Your task to perform on an android device: Open Google Chrome Image 0: 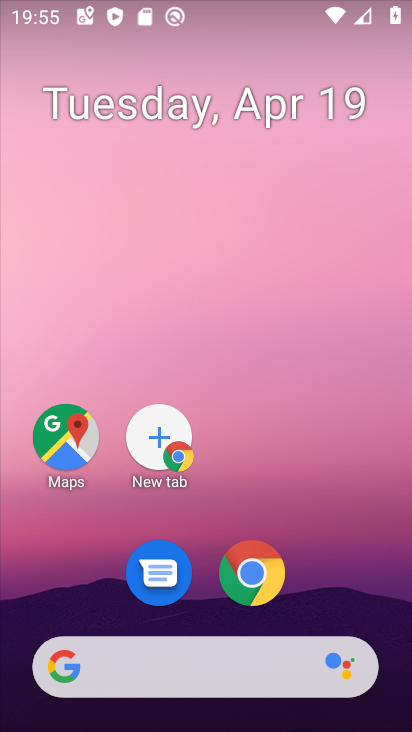
Step 0: click (267, 559)
Your task to perform on an android device: Open Google Chrome Image 1: 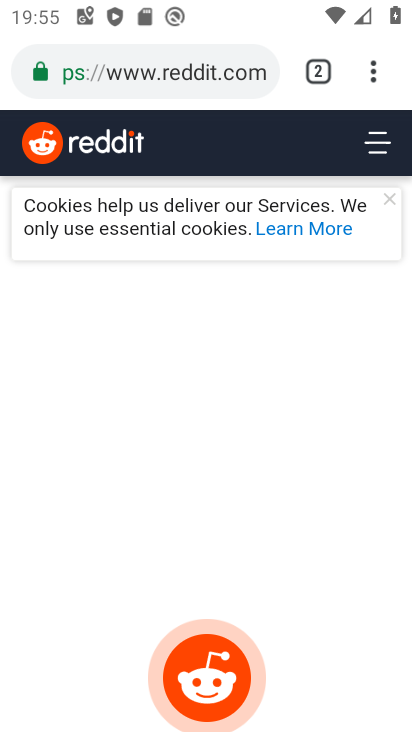
Step 1: task complete